Your task to perform on an android device: toggle pop-ups in chrome Image 0: 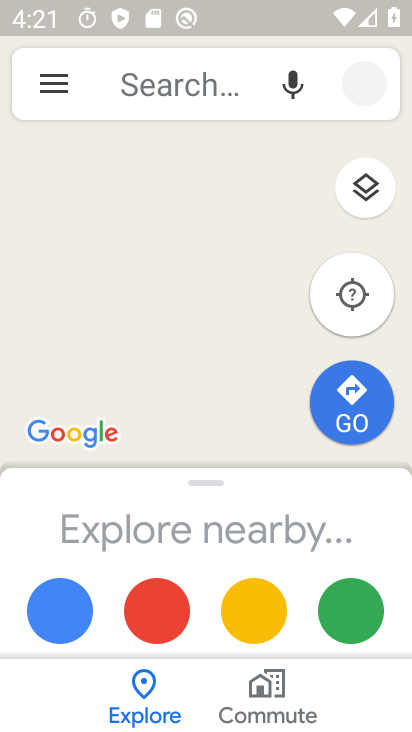
Step 0: press home button
Your task to perform on an android device: toggle pop-ups in chrome Image 1: 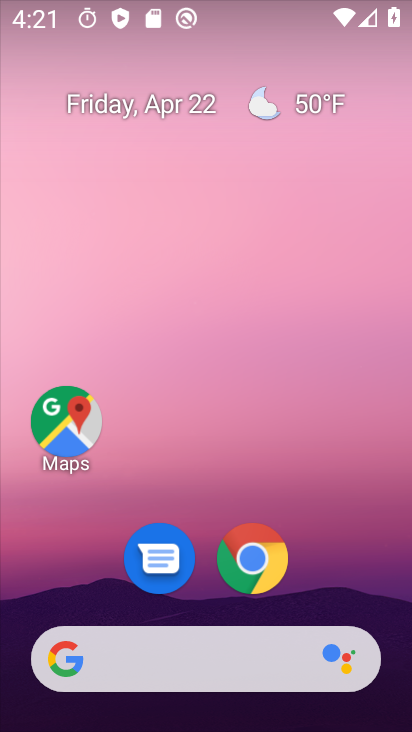
Step 1: drag from (296, 482) to (236, 114)
Your task to perform on an android device: toggle pop-ups in chrome Image 2: 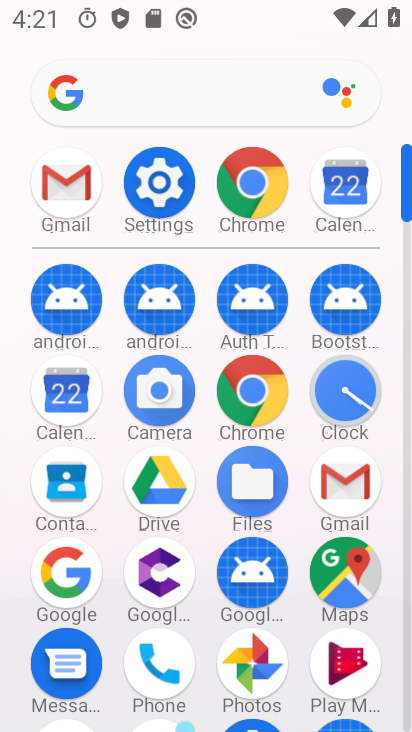
Step 2: click (242, 397)
Your task to perform on an android device: toggle pop-ups in chrome Image 3: 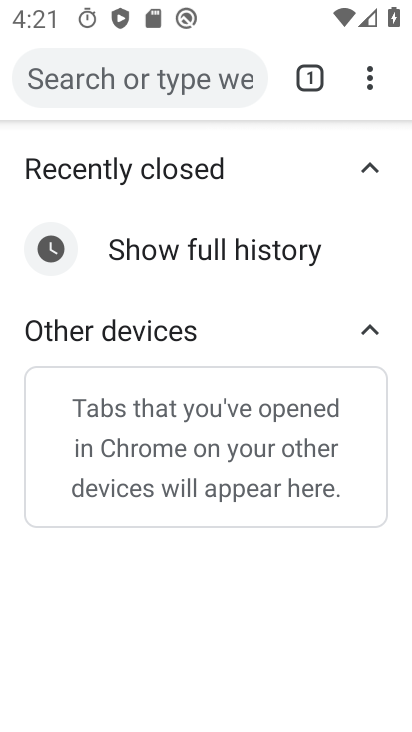
Step 3: click (368, 83)
Your task to perform on an android device: toggle pop-ups in chrome Image 4: 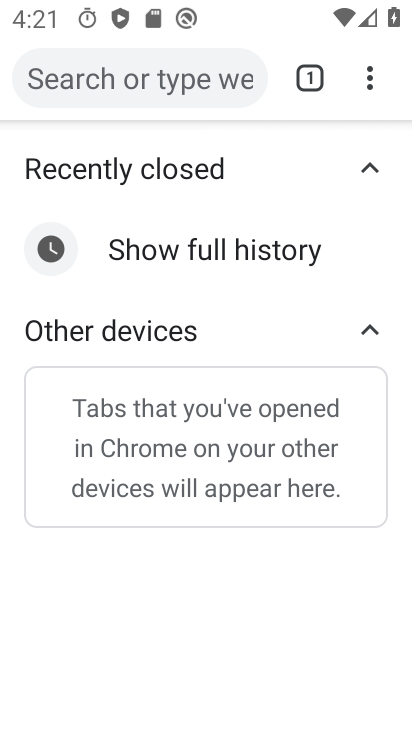
Step 4: click (372, 80)
Your task to perform on an android device: toggle pop-ups in chrome Image 5: 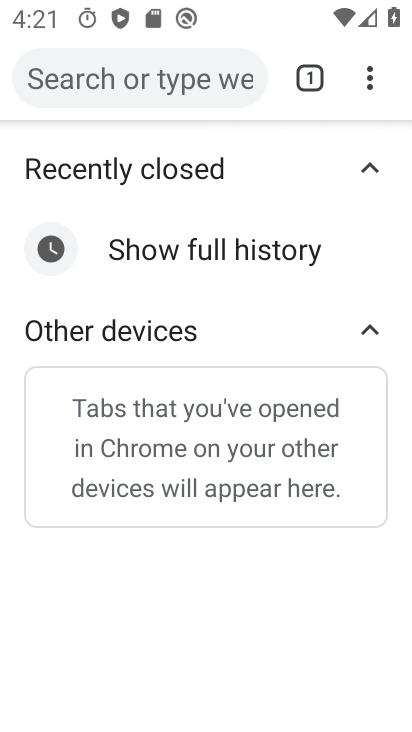
Step 5: click (374, 75)
Your task to perform on an android device: toggle pop-ups in chrome Image 6: 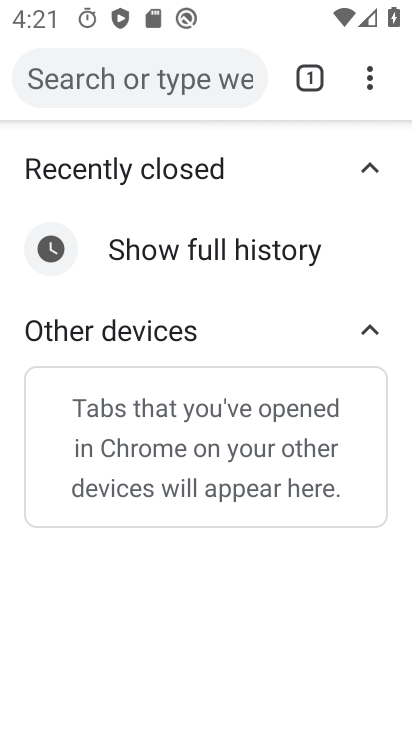
Step 6: click (368, 90)
Your task to perform on an android device: toggle pop-ups in chrome Image 7: 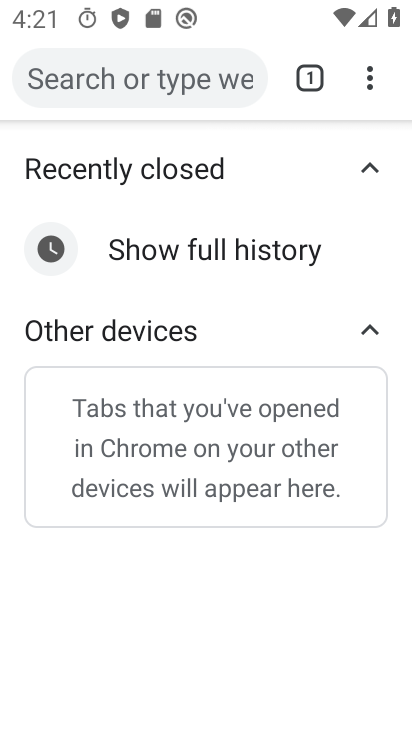
Step 7: click (375, 81)
Your task to perform on an android device: toggle pop-ups in chrome Image 8: 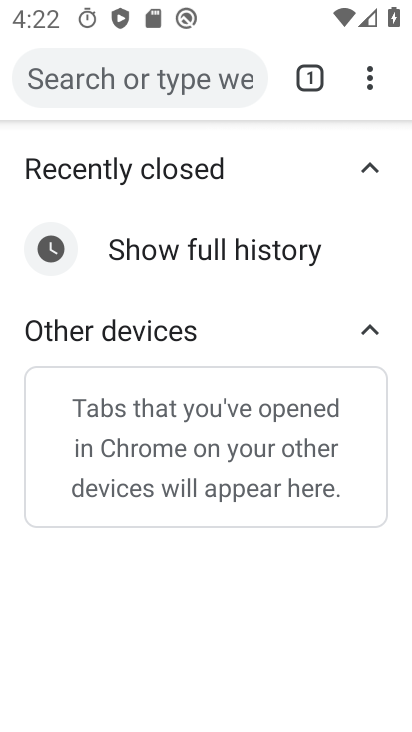
Step 8: click (368, 80)
Your task to perform on an android device: toggle pop-ups in chrome Image 9: 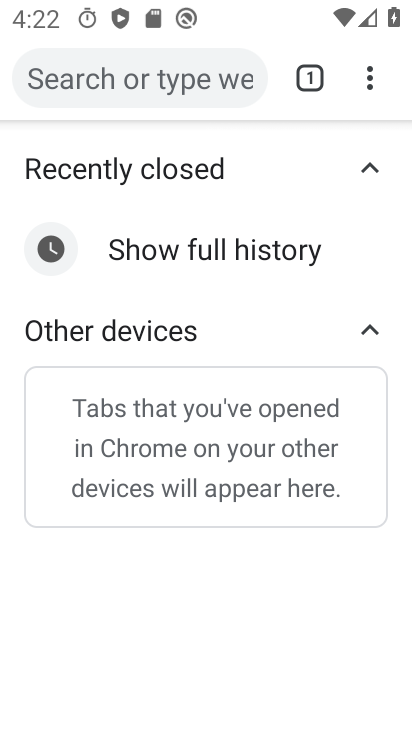
Step 9: click (367, 76)
Your task to perform on an android device: toggle pop-ups in chrome Image 10: 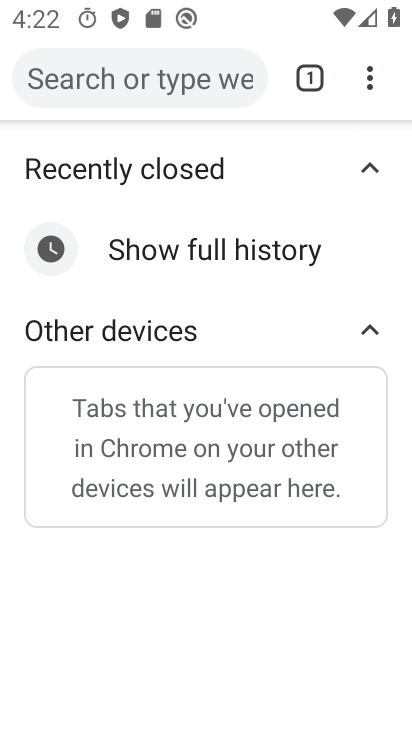
Step 10: click (367, 74)
Your task to perform on an android device: toggle pop-ups in chrome Image 11: 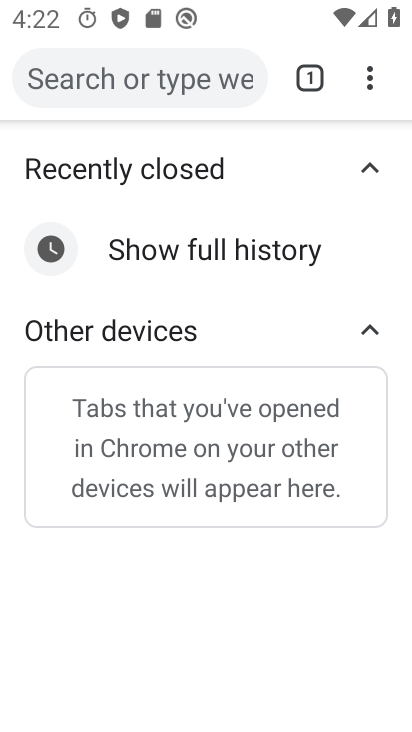
Step 11: click (374, 85)
Your task to perform on an android device: toggle pop-ups in chrome Image 12: 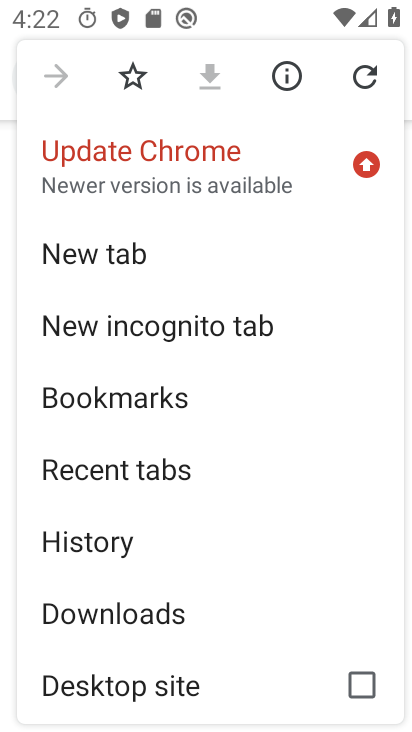
Step 12: drag from (152, 646) to (181, 380)
Your task to perform on an android device: toggle pop-ups in chrome Image 13: 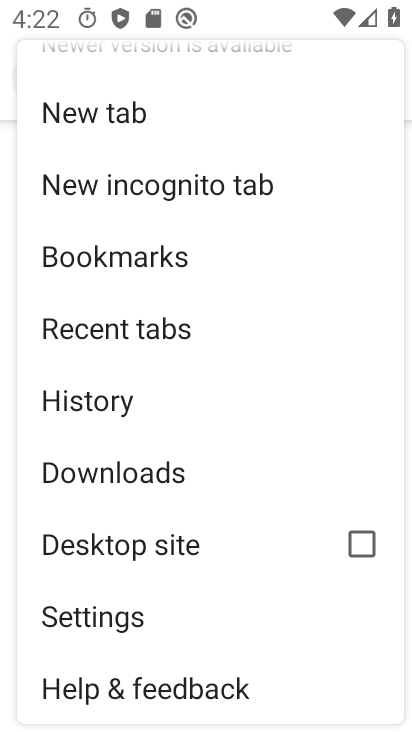
Step 13: click (101, 628)
Your task to perform on an android device: toggle pop-ups in chrome Image 14: 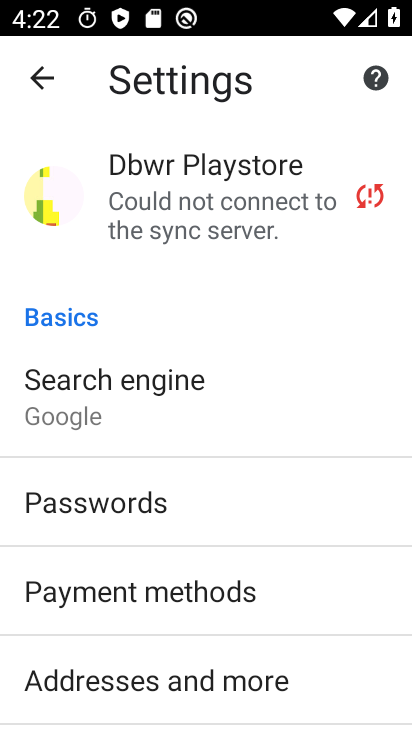
Step 14: drag from (124, 630) to (171, 235)
Your task to perform on an android device: toggle pop-ups in chrome Image 15: 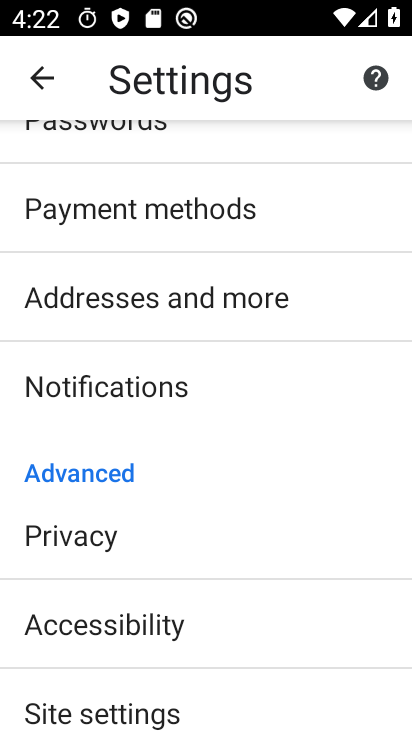
Step 15: drag from (182, 646) to (204, 295)
Your task to perform on an android device: toggle pop-ups in chrome Image 16: 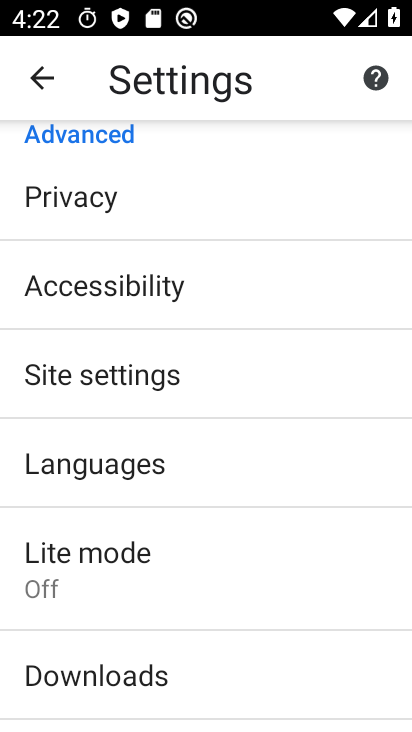
Step 16: click (85, 394)
Your task to perform on an android device: toggle pop-ups in chrome Image 17: 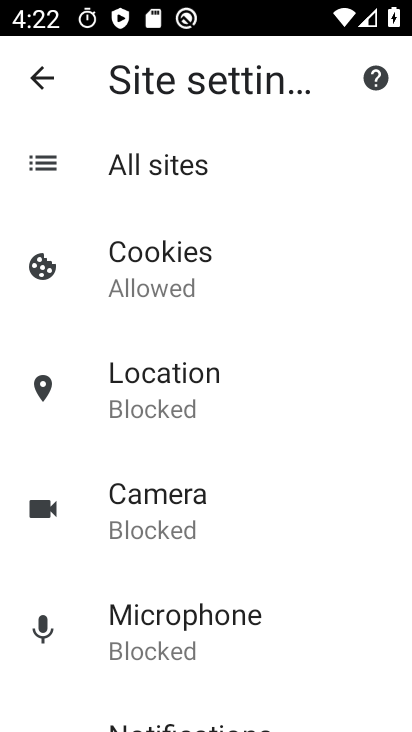
Step 17: drag from (199, 613) to (261, 291)
Your task to perform on an android device: toggle pop-ups in chrome Image 18: 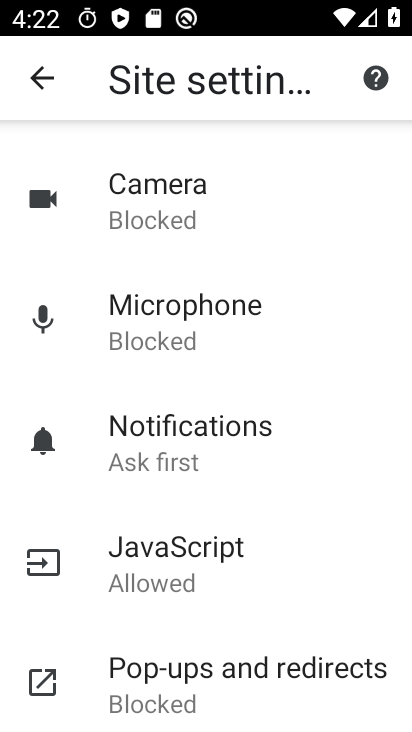
Step 18: click (197, 695)
Your task to perform on an android device: toggle pop-ups in chrome Image 19: 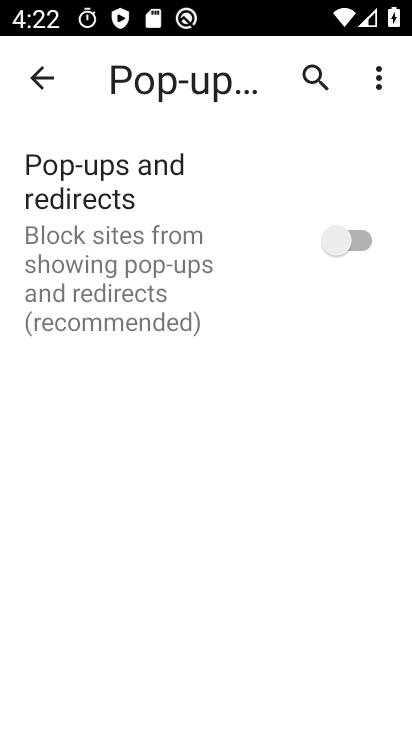
Step 19: click (376, 237)
Your task to perform on an android device: toggle pop-ups in chrome Image 20: 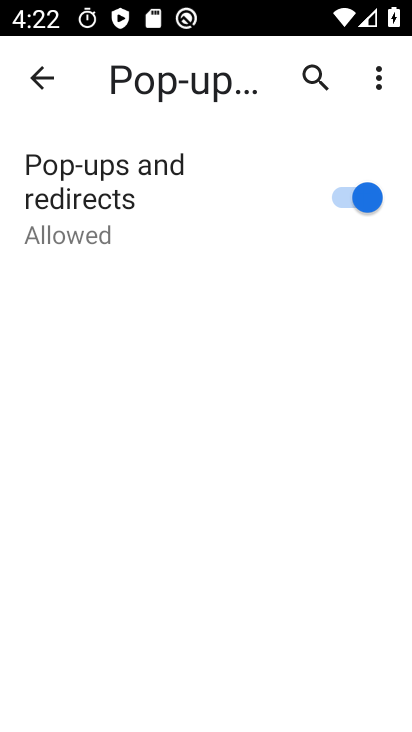
Step 20: task complete